Your task to perform on an android device: See recent photos Image 0: 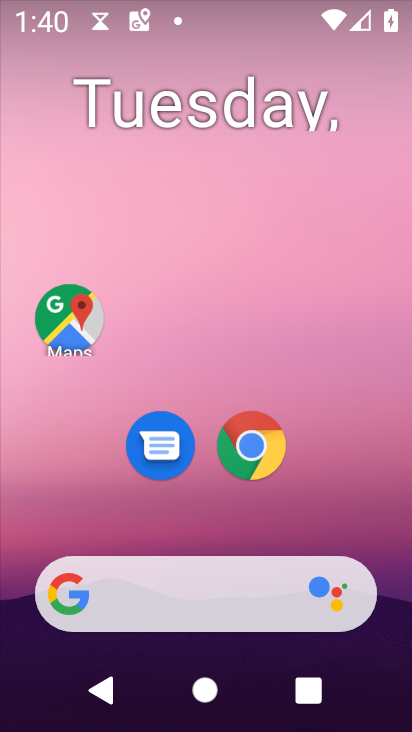
Step 0: drag from (319, 567) to (369, 12)
Your task to perform on an android device: See recent photos Image 1: 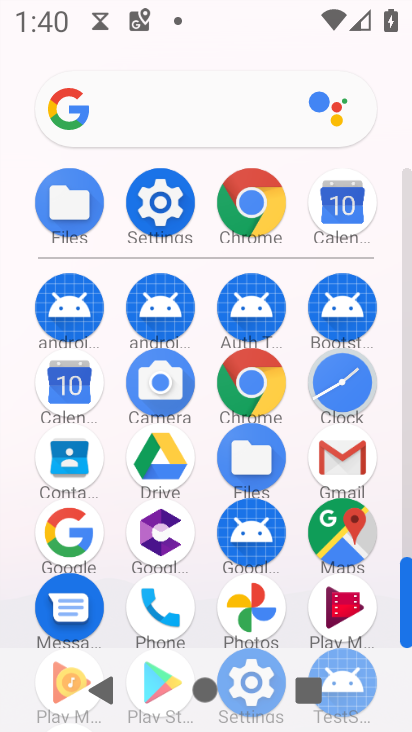
Step 1: click (262, 621)
Your task to perform on an android device: See recent photos Image 2: 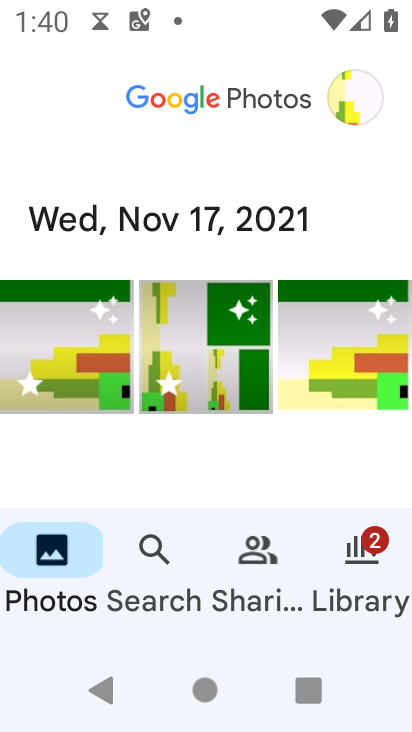
Step 2: task complete